Your task to perform on an android device: Do I have any events tomorrow? Image 0: 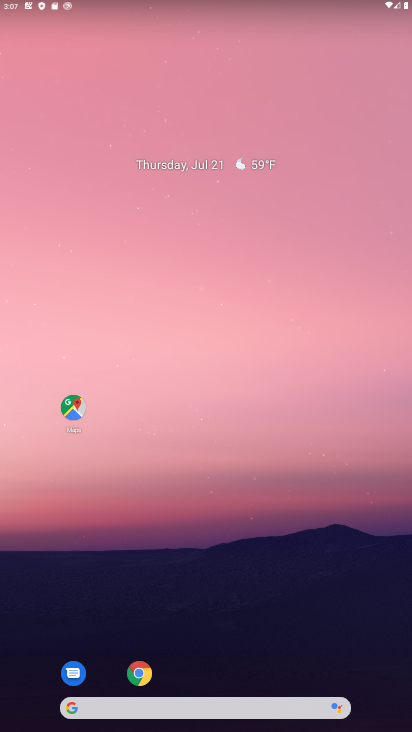
Step 0: drag from (259, 664) to (142, 28)
Your task to perform on an android device: Do I have any events tomorrow? Image 1: 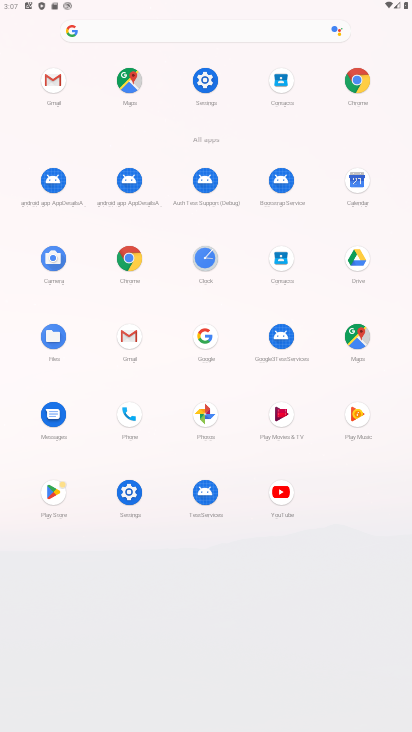
Step 1: click (359, 184)
Your task to perform on an android device: Do I have any events tomorrow? Image 2: 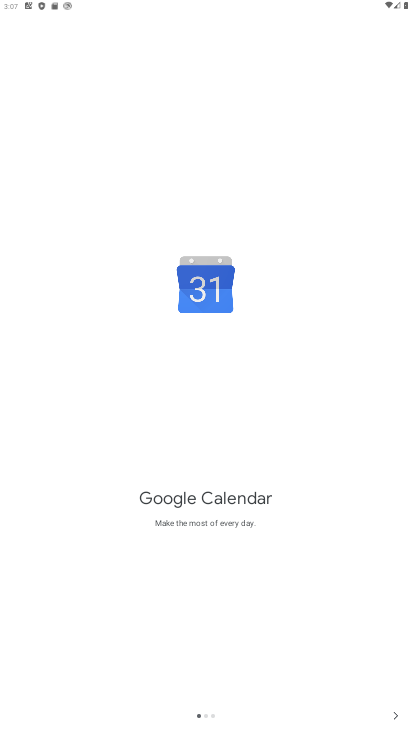
Step 2: click (396, 712)
Your task to perform on an android device: Do I have any events tomorrow? Image 3: 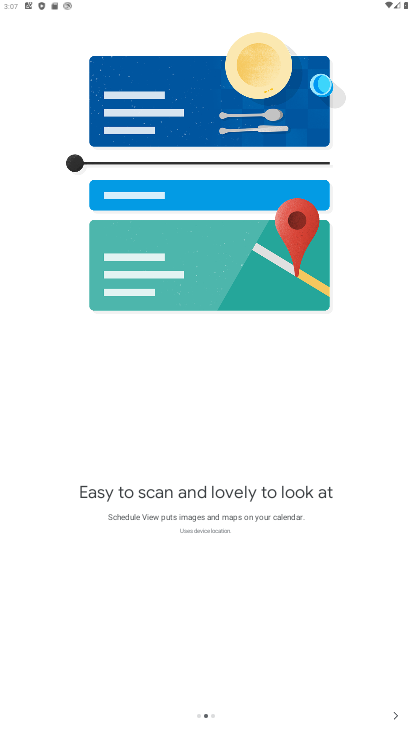
Step 3: click (396, 712)
Your task to perform on an android device: Do I have any events tomorrow? Image 4: 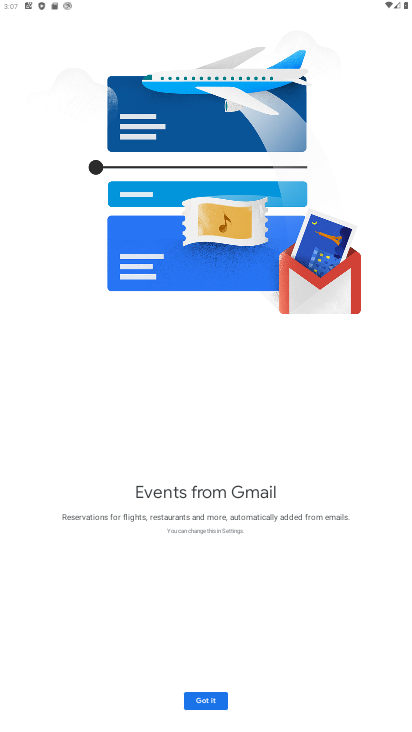
Step 4: click (220, 701)
Your task to perform on an android device: Do I have any events tomorrow? Image 5: 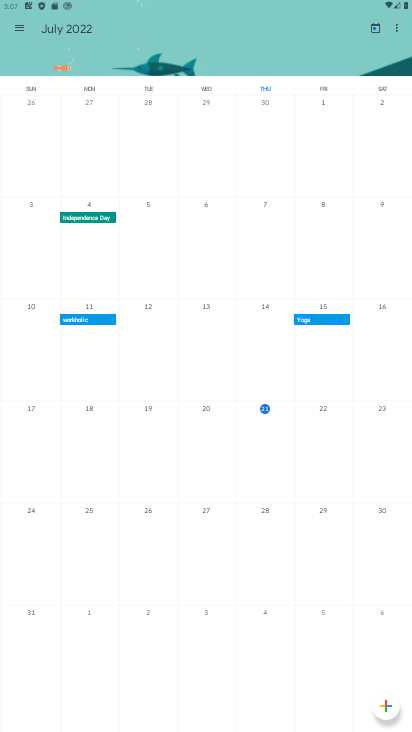
Step 5: click (15, 36)
Your task to perform on an android device: Do I have any events tomorrow? Image 6: 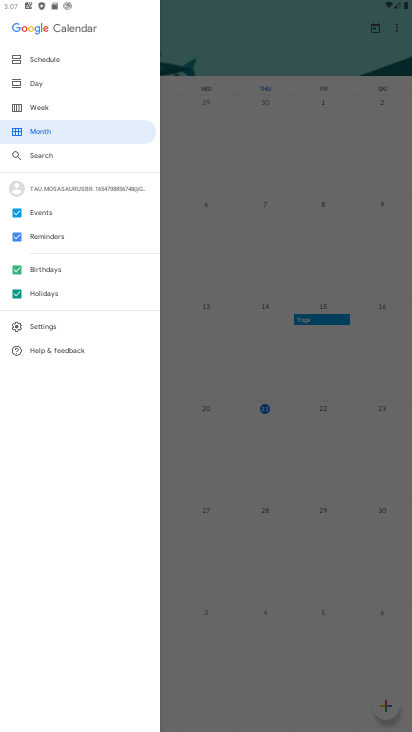
Step 6: click (15, 293)
Your task to perform on an android device: Do I have any events tomorrow? Image 7: 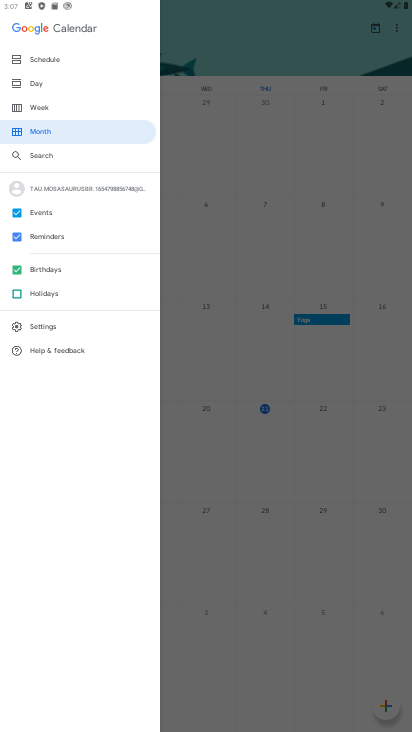
Step 7: click (17, 265)
Your task to perform on an android device: Do I have any events tomorrow? Image 8: 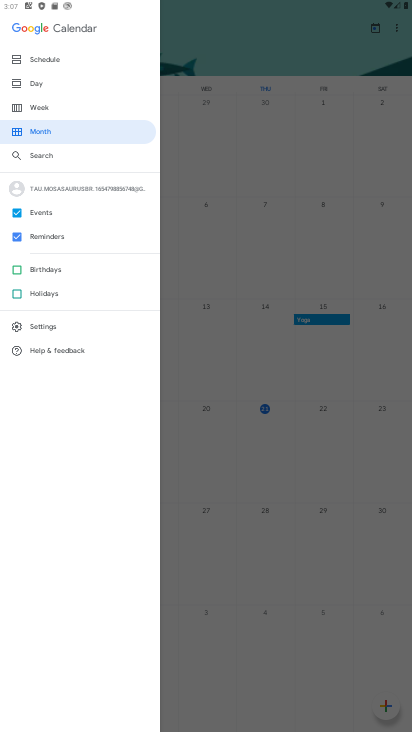
Step 8: click (15, 240)
Your task to perform on an android device: Do I have any events tomorrow? Image 9: 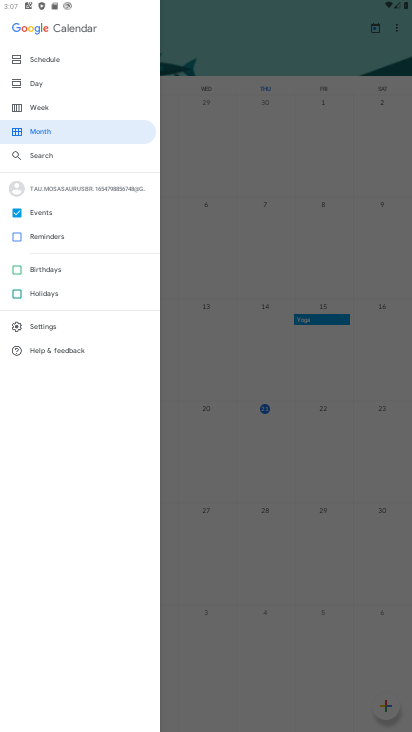
Step 9: click (43, 88)
Your task to perform on an android device: Do I have any events tomorrow? Image 10: 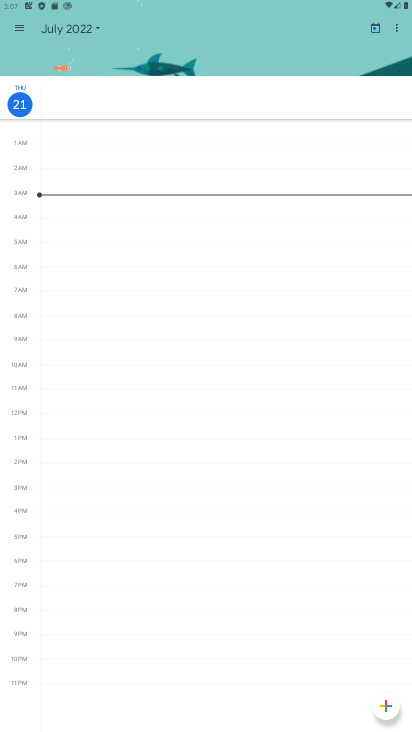
Step 10: task complete